Your task to perform on an android device: make emails show in primary in the gmail app Image 0: 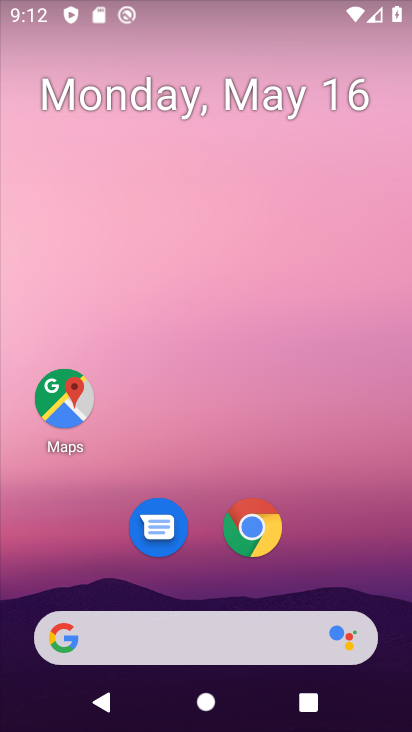
Step 0: drag from (341, 598) to (336, 14)
Your task to perform on an android device: make emails show in primary in the gmail app Image 1: 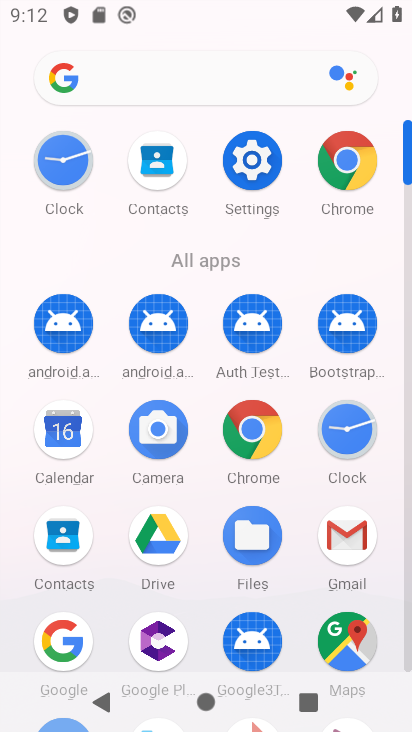
Step 1: click (345, 541)
Your task to perform on an android device: make emails show in primary in the gmail app Image 2: 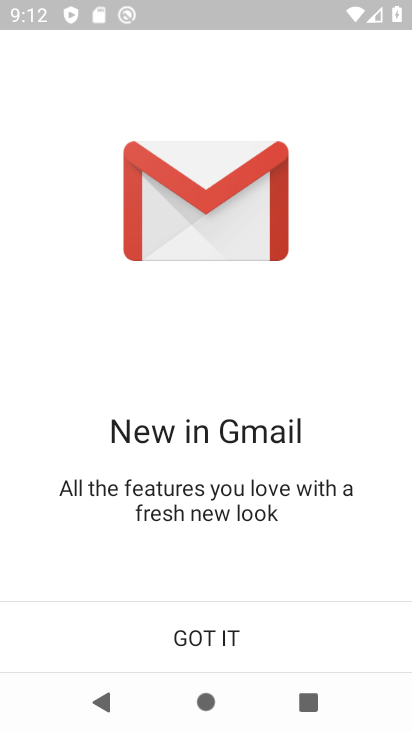
Step 2: click (212, 636)
Your task to perform on an android device: make emails show in primary in the gmail app Image 3: 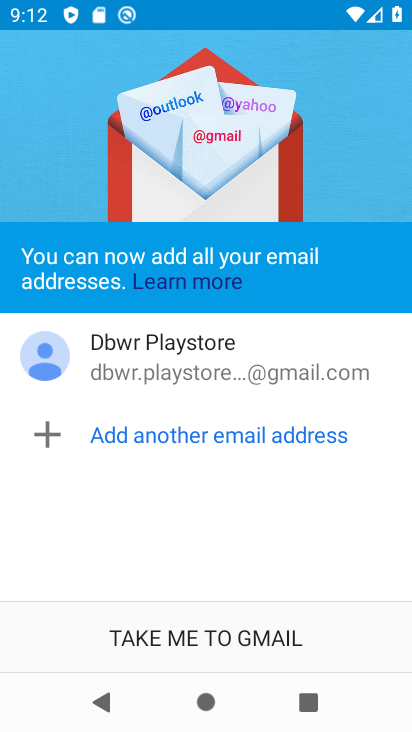
Step 3: click (211, 636)
Your task to perform on an android device: make emails show in primary in the gmail app Image 4: 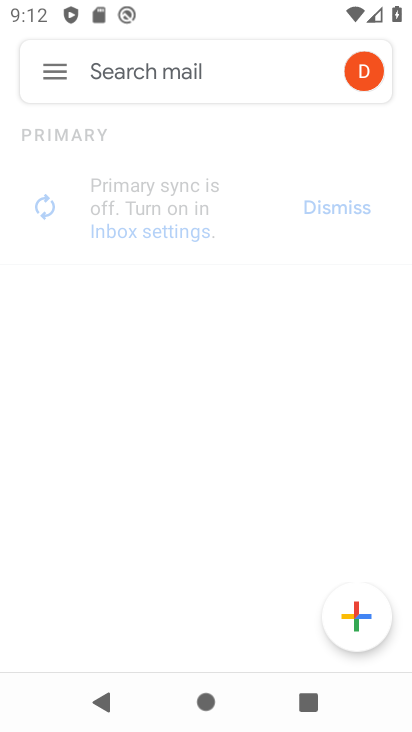
Step 4: click (51, 73)
Your task to perform on an android device: make emails show in primary in the gmail app Image 5: 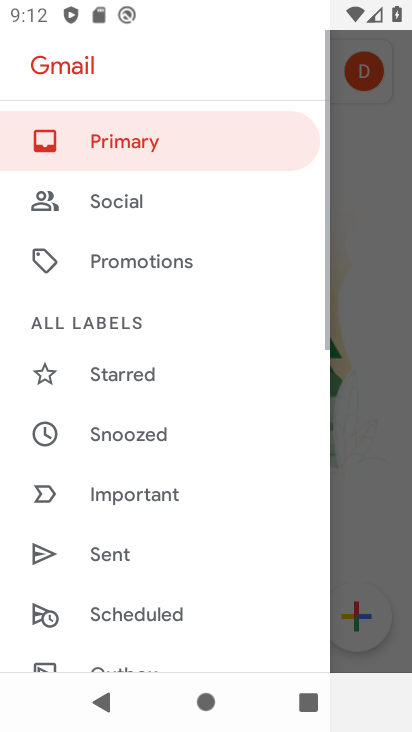
Step 5: drag from (148, 573) to (144, 159)
Your task to perform on an android device: make emails show in primary in the gmail app Image 6: 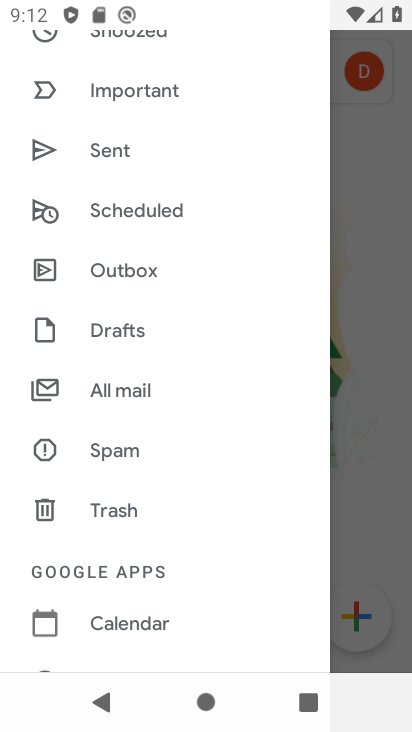
Step 6: drag from (220, 571) to (218, 239)
Your task to perform on an android device: make emails show in primary in the gmail app Image 7: 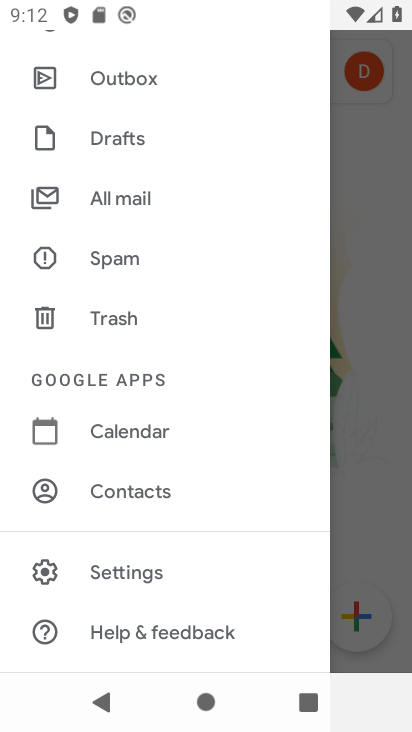
Step 7: click (118, 584)
Your task to perform on an android device: make emails show in primary in the gmail app Image 8: 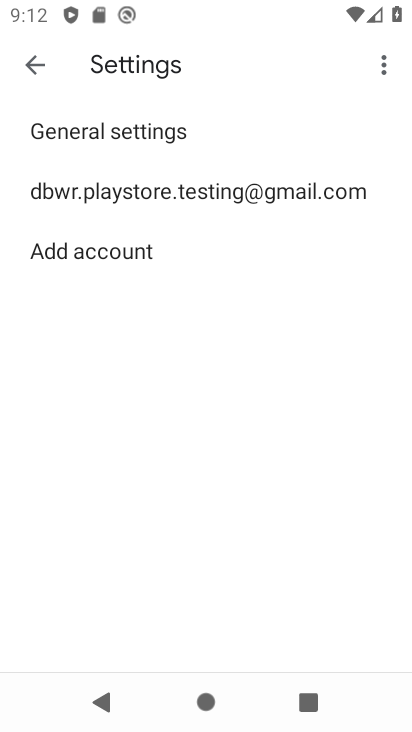
Step 8: click (140, 193)
Your task to perform on an android device: make emails show in primary in the gmail app Image 9: 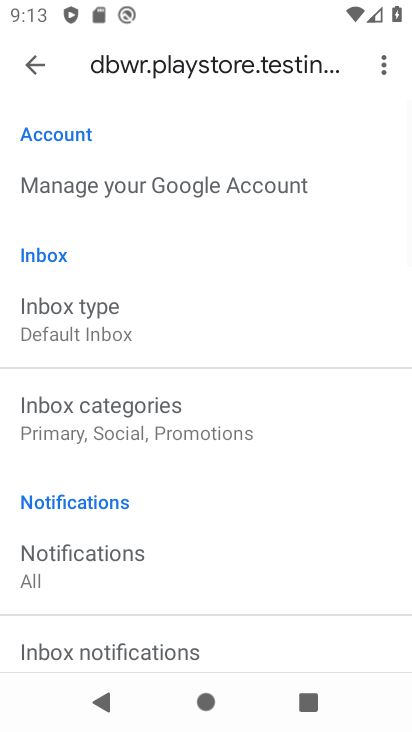
Step 9: click (79, 430)
Your task to perform on an android device: make emails show in primary in the gmail app Image 10: 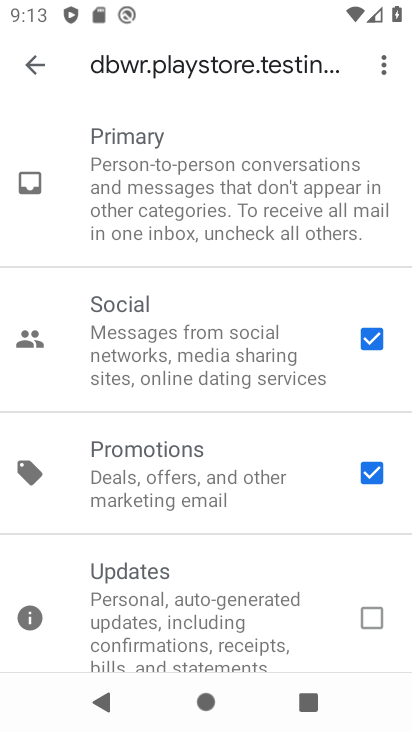
Step 10: click (374, 347)
Your task to perform on an android device: make emails show in primary in the gmail app Image 11: 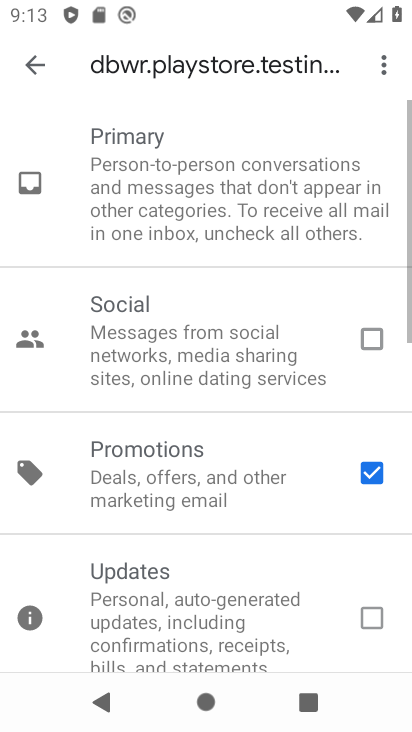
Step 11: click (365, 467)
Your task to perform on an android device: make emails show in primary in the gmail app Image 12: 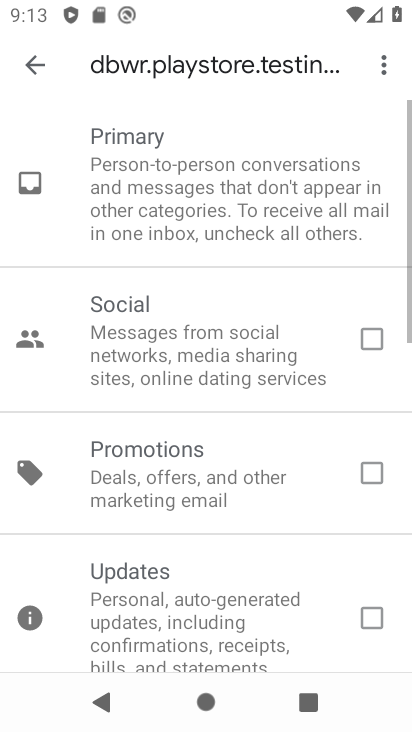
Step 12: click (38, 63)
Your task to perform on an android device: make emails show in primary in the gmail app Image 13: 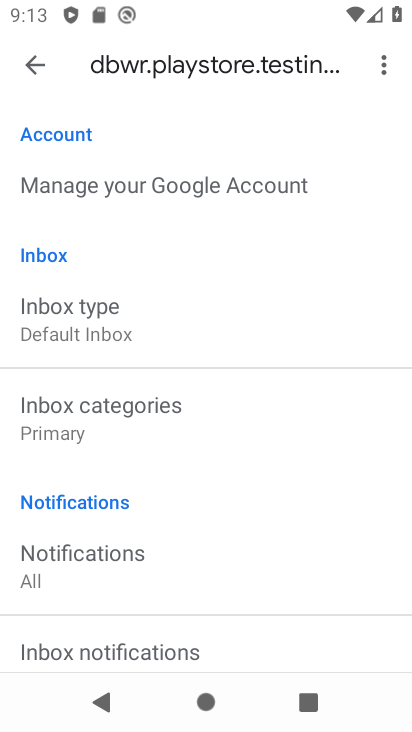
Step 13: task complete